Your task to perform on an android device: move a message to another label in the gmail app Image 0: 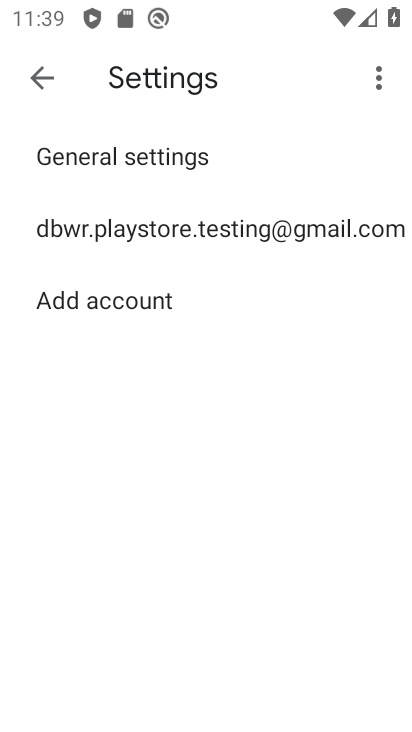
Step 0: click (50, 72)
Your task to perform on an android device: move a message to another label in the gmail app Image 1: 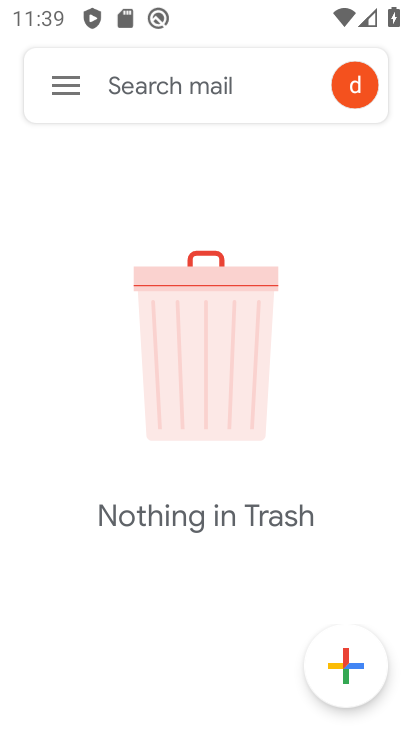
Step 1: click (50, 75)
Your task to perform on an android device: move a message to another label in the gmail app Image 2: 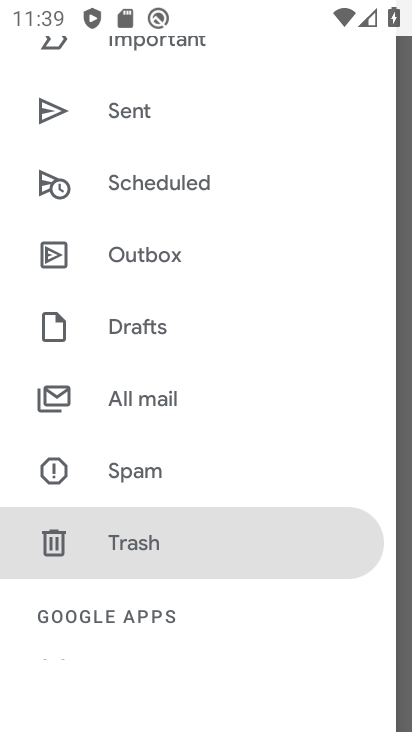
Step 2: click (120, 406)
Your task to perform on an android device: move a message to another label in the gmail app Image 3: 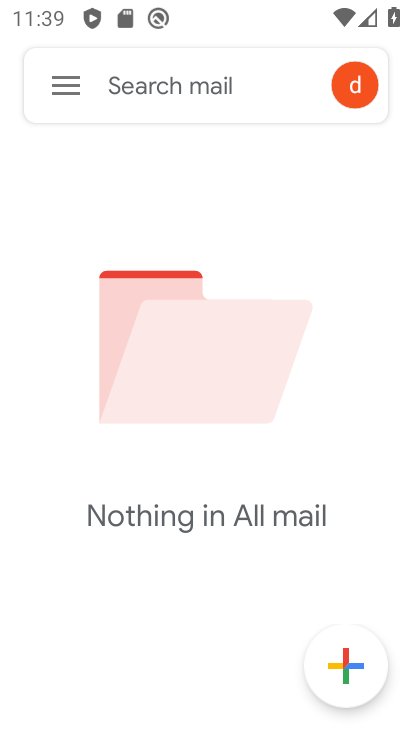
Step 3: task complete